Your task to perform on an android device: visit the assistant section in the google photos Image 0: 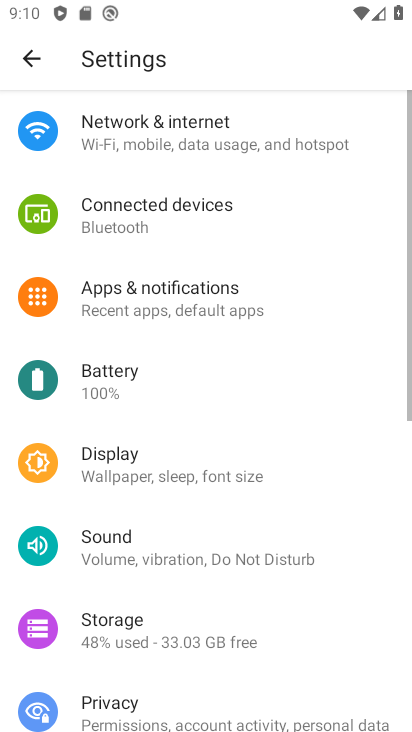
Step 0: press home button
Your task to perform on an android device: visit the assistant section in the google photos Image 1: 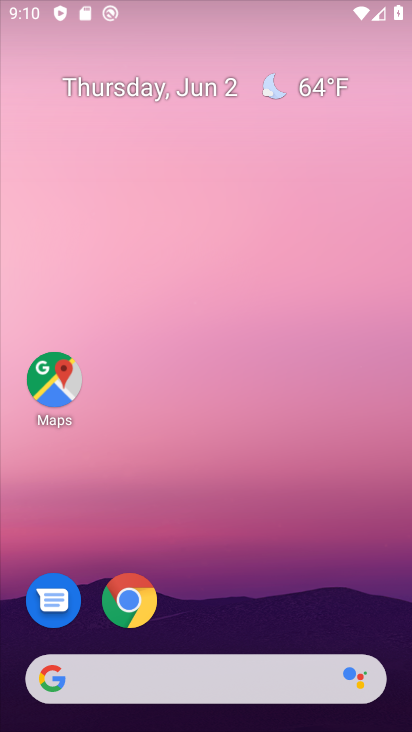
Step 1: drag from (199, 591) to (147, 37)
Your task to perform on an android device: visit the assistant section in the google photos Image 2: 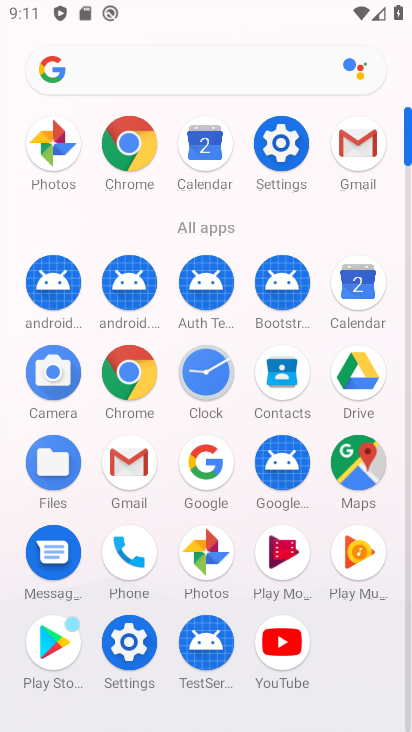
Step 2: click (53, 143)
Your task to perform on an android device: visit the assistant section in the google photos Image 3: 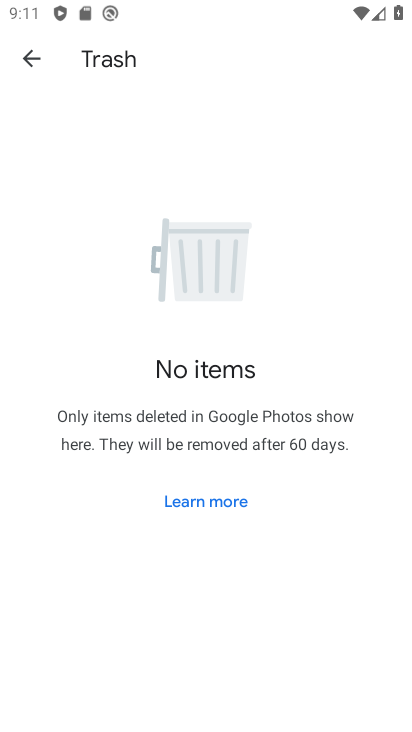
Step 3: press back button
Your task to perform on an android device: visit the assistant section in the google photos Image 4: 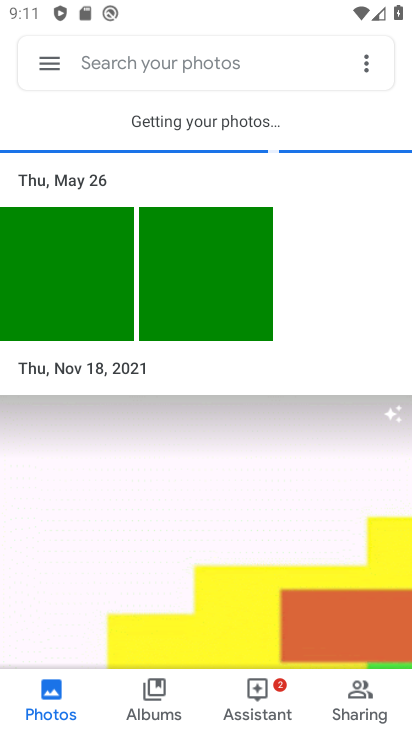
Step 4: click (265, 695)
Your task to perform on an android device: visit the assistant section in the google photos Image 5: 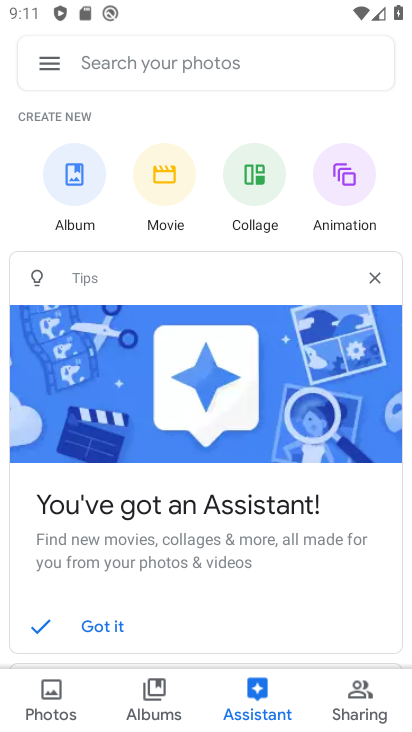
Step 5: task complete